Your task to perform on an android device: turn on sleep mode Image 0: 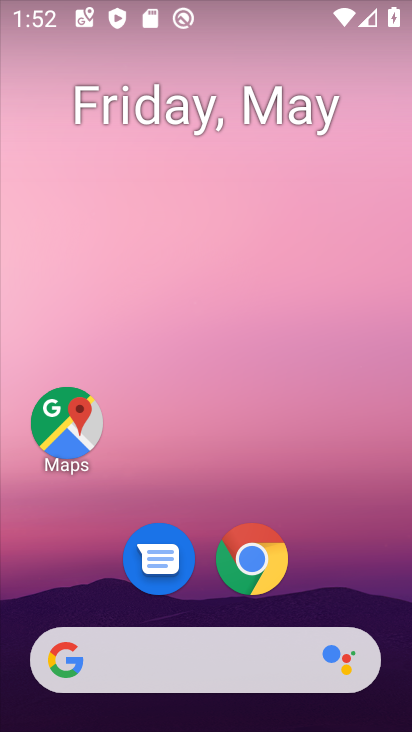
Step 0: drag from (348, 574) to (348, 226)
Your task to perform on an android device: turn on sleep mode Image 1: 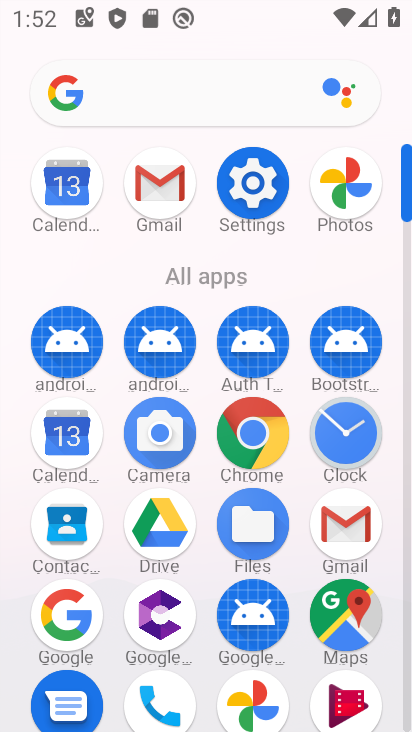
Step 1: click (276, 181)
Your task to perform on an android device: turn on sleep mode Image 2: 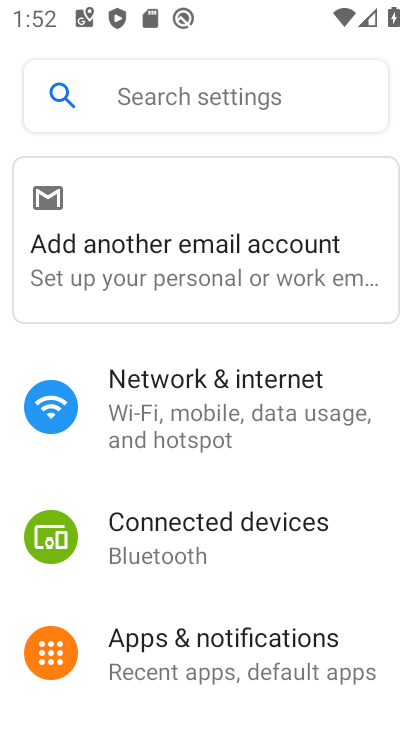
Step 2: drag from (258, 672) to (231, 322)
Your task to perform on an android device: turn on sleep mode Image 3: 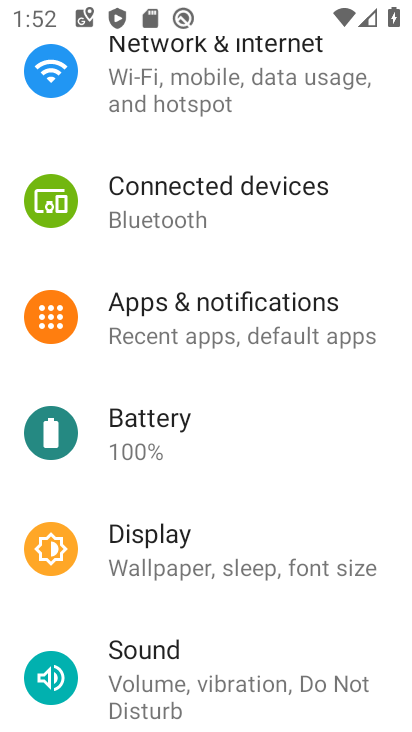
Step 3: click (221, 546)
Your task to perform on an android device: turn on sleep mode Image 4: 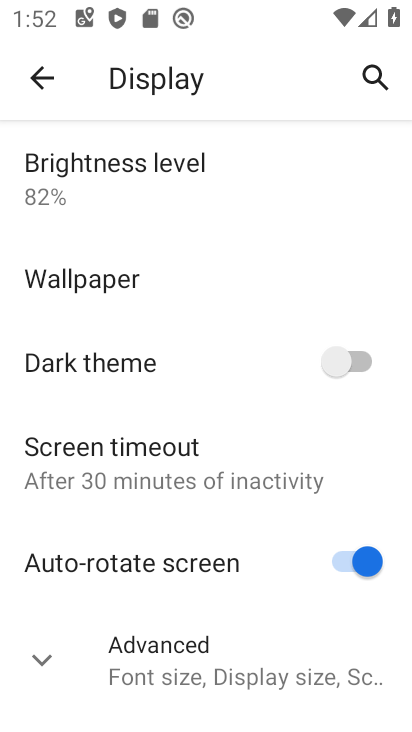
Step 4: drag from (242, 585) to (255, 273)
Your task to perform on an android device: turn on sleep mode Image 5: 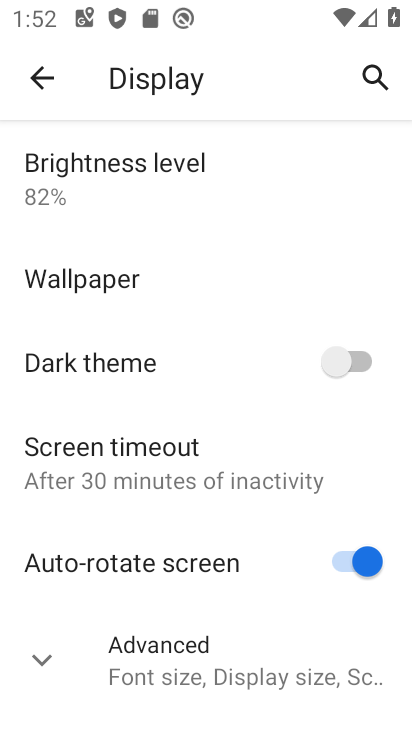
Step 5: click (49, 655)
Your task to perform on an android device: turn on sleep mode Image 6: 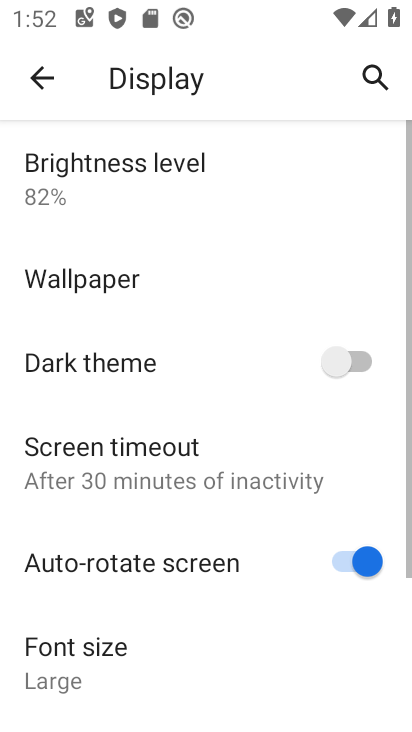
Step 6: task complete